Your task to perform on an android device: Turn on the flashlight Image 0: 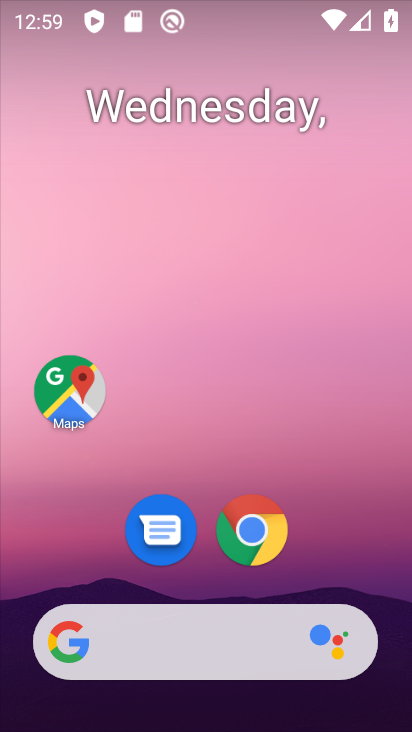
Step 0: drag from (229, 541) to (262, 360)
Your task to perform on an android device: Turn on the flashlight Image 1: 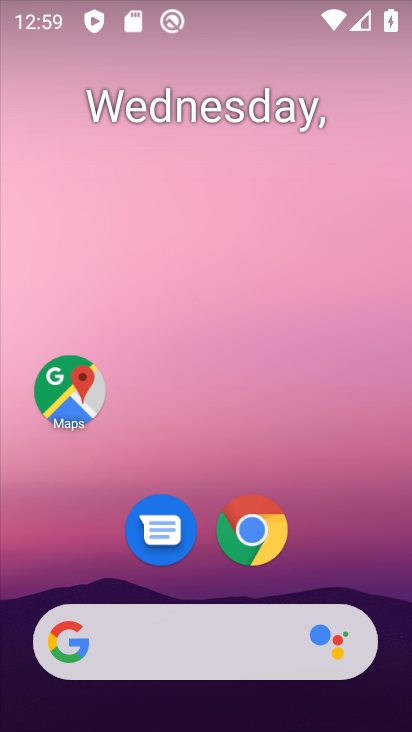
Step 1: drag from (200, 574) to (240, 203)
Your task to perform on an android device: Turn on the flashlight Image 2: 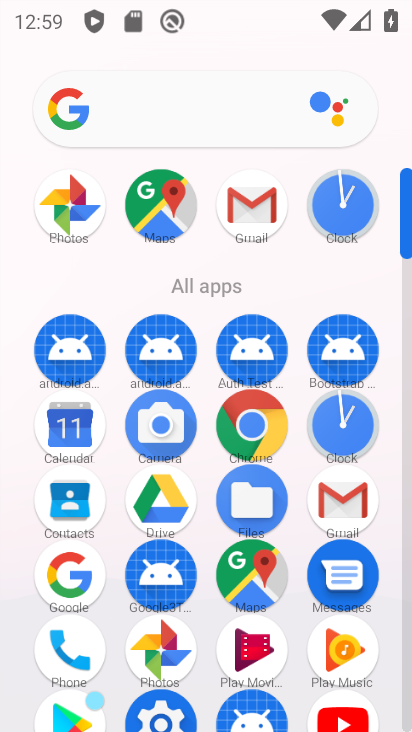
Step 2: click (152, 712)
Your task to perform on an android device: Turn on the flashlight Image 3: 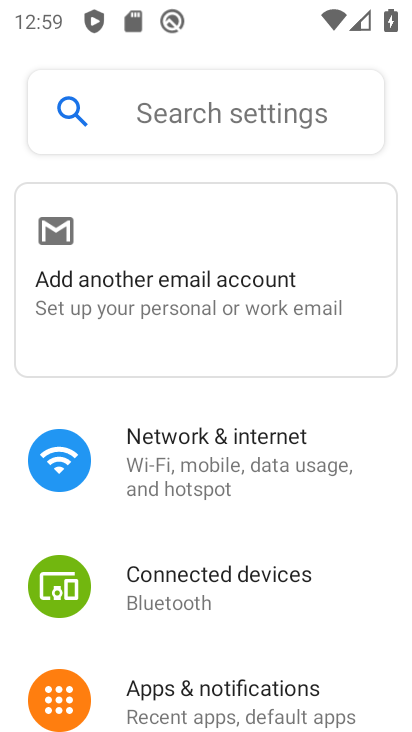
Step 3: click (257, 107)
Your task to perform on an android device: Turn on the flashlight Image 4: 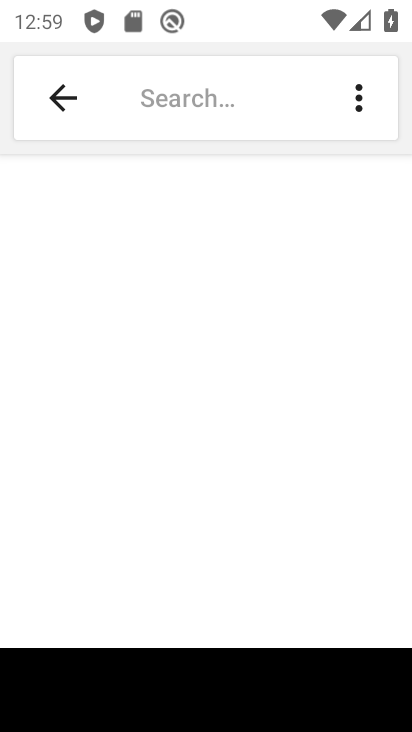
Step 4: click (159, 144)
Your task to perform on an android device: Turn on the flashlight Image 5: 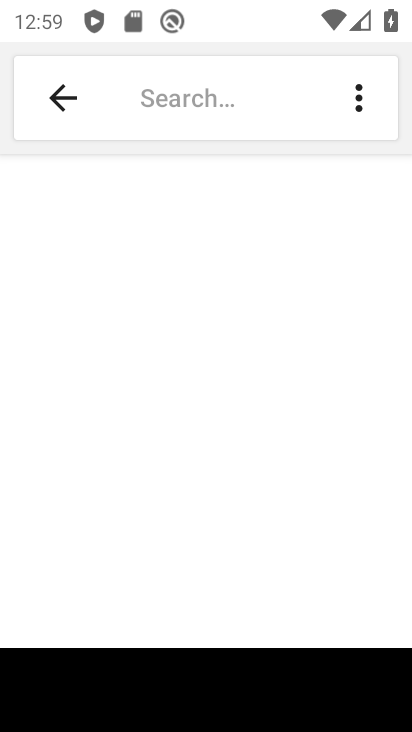
Step 5: type "flashlight"
Your task to perform on an android device: Turn on the flashlight Image 6: 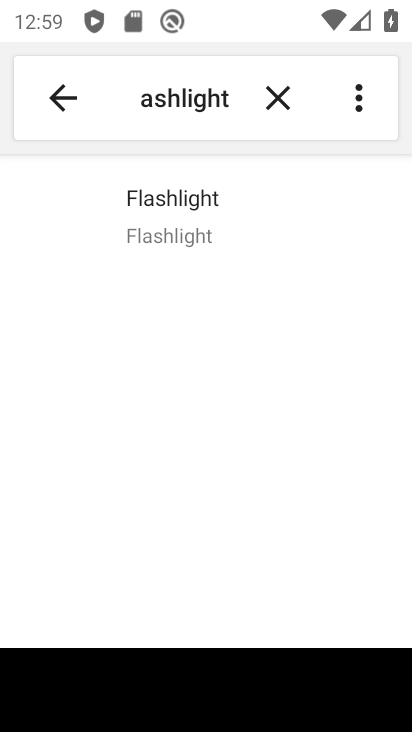
Step 6: click (145, 210)
Your task to perform on an android device: Turn on the flashlight Image 7: 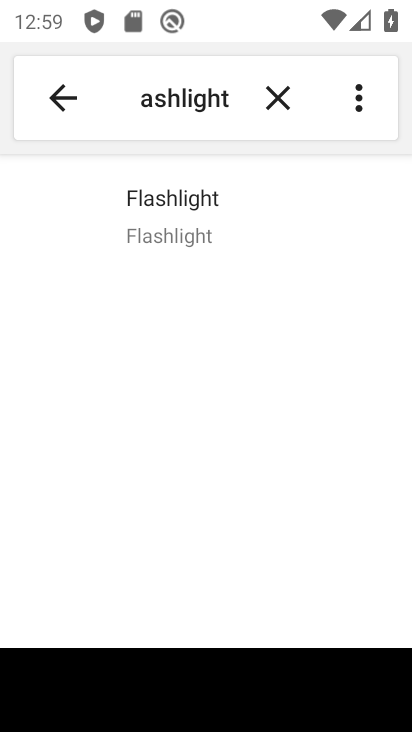
Step 7: click (180, 215)
Your task to perform on an android device: Turn on the flashlight Image 8: 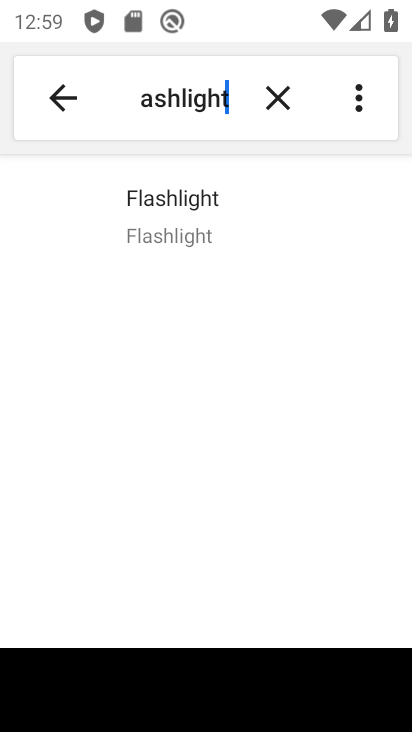
Step 8: task complete